Your task to perform on an android device: open chrome privacy settings Image 0: 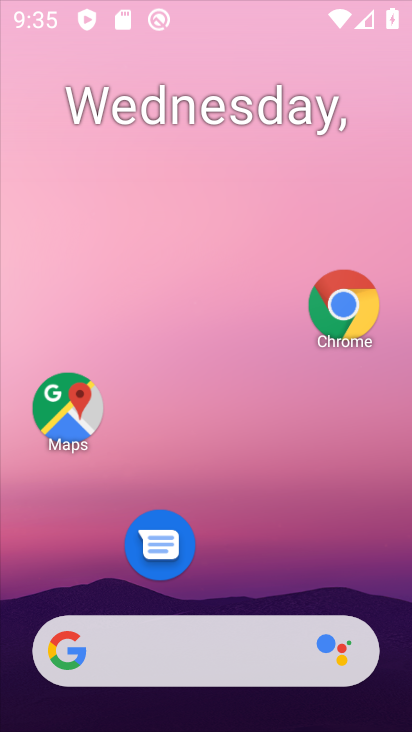
Step 0: click (294, 283)
Your task to perform on an android device: open chrome privacy settings Image 1: 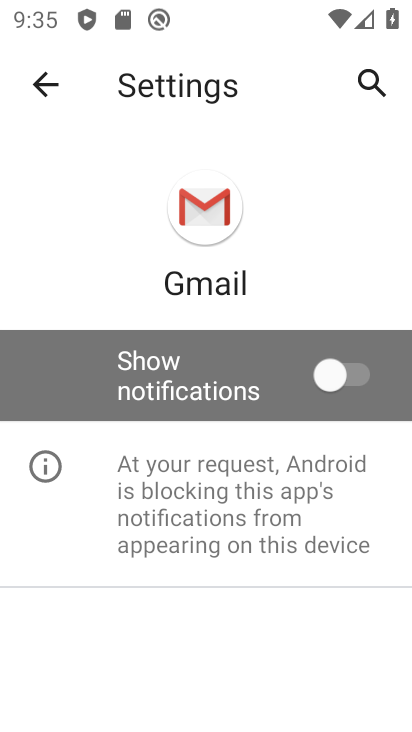
Step 1: press home button
Your task to perform on an android device: open chrome privacy settings Image 2: 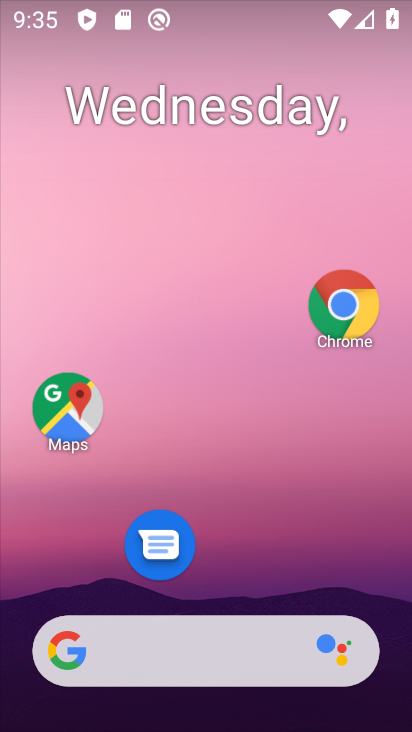
Step 2: click (345, 343)
Your task to perform on an android device: open chrome privacy settings Image 3: 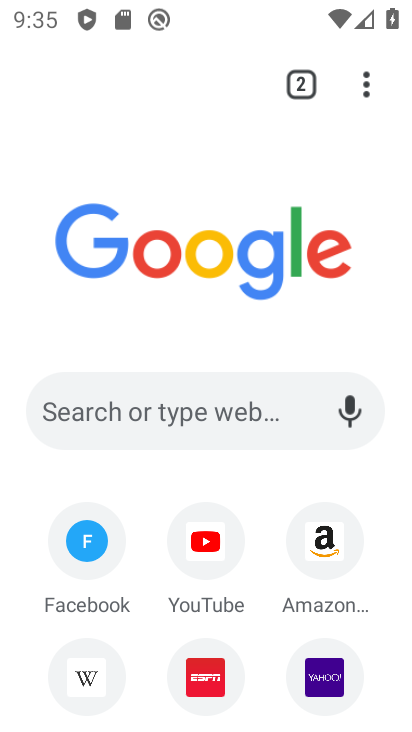
Step 3: click (374, 87)
Your task to perform on an android device: open chrome privacy settings Image 4: 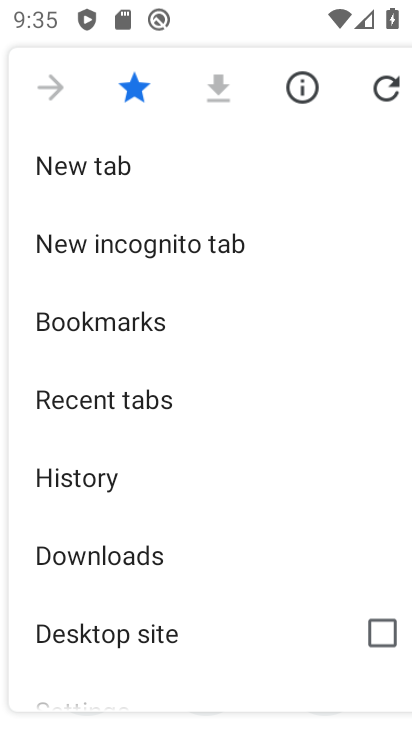
Step 4: drag from (196, 547) to (203, 313)
Your task to perform on an android device: open chrome privacy settings Image 5: 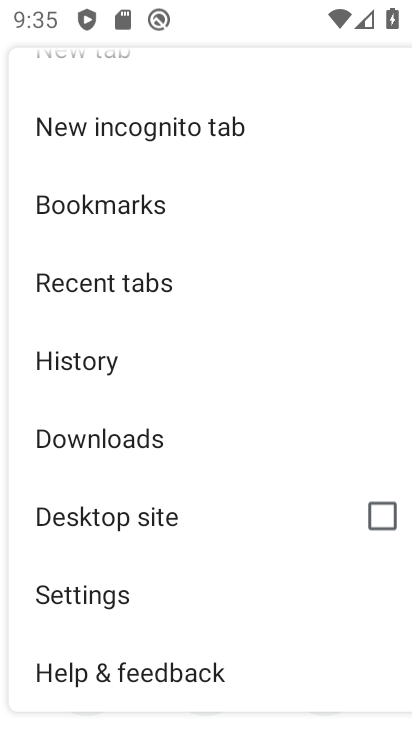
Step 5: click (156, 607)
Your task to perform on an android device: open chrome privacy settings Image 6: 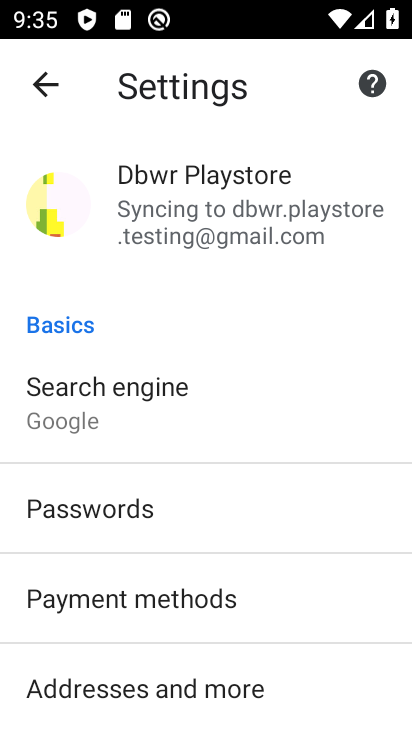
Step 6: drag from (156, 607) to (143, 482)
Your task to perform on an android device: open chrome privacy settings Image 7: 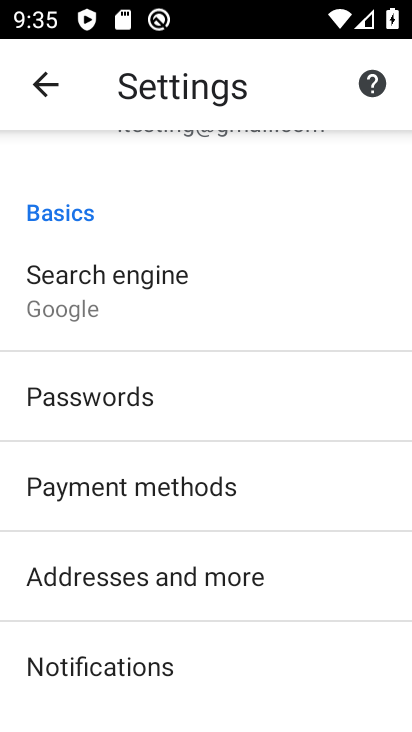
Step 7: drag from (165, 578) to (171, 437)
Your task to perform on an android device: open chrome privacy settings Image 8: 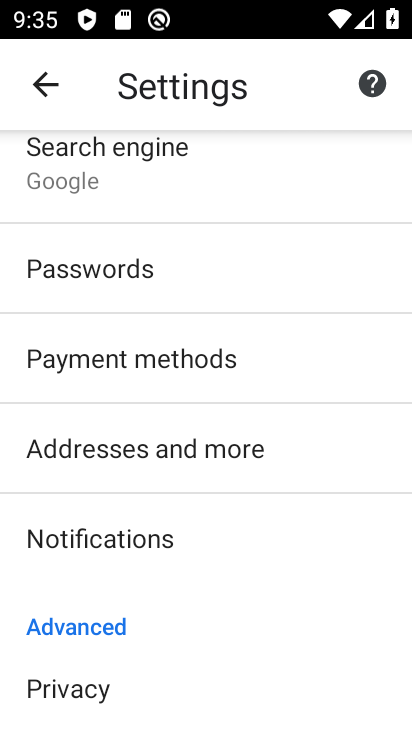
Step 8: drag from (182, 605) to (199, 398)
Your task to perform on an android device: open chrome privacy settings Image 9: 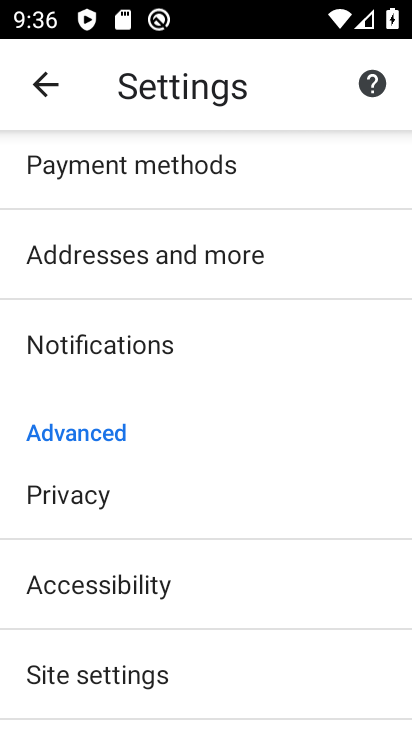
Step 9: click (126, 507)
Your task to perform on an android device: open chrome privacy settings Image 10: 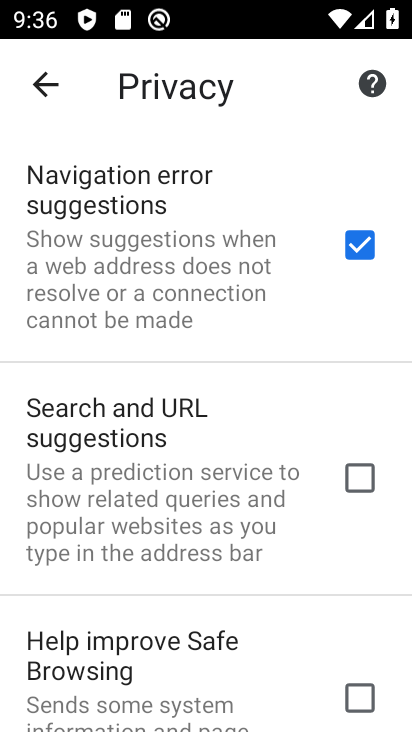
Step 10: task complete